Your task to perform on an android device: Show the shopping cart on ebay. Add razer thresher to the cart on ebay Image 0: 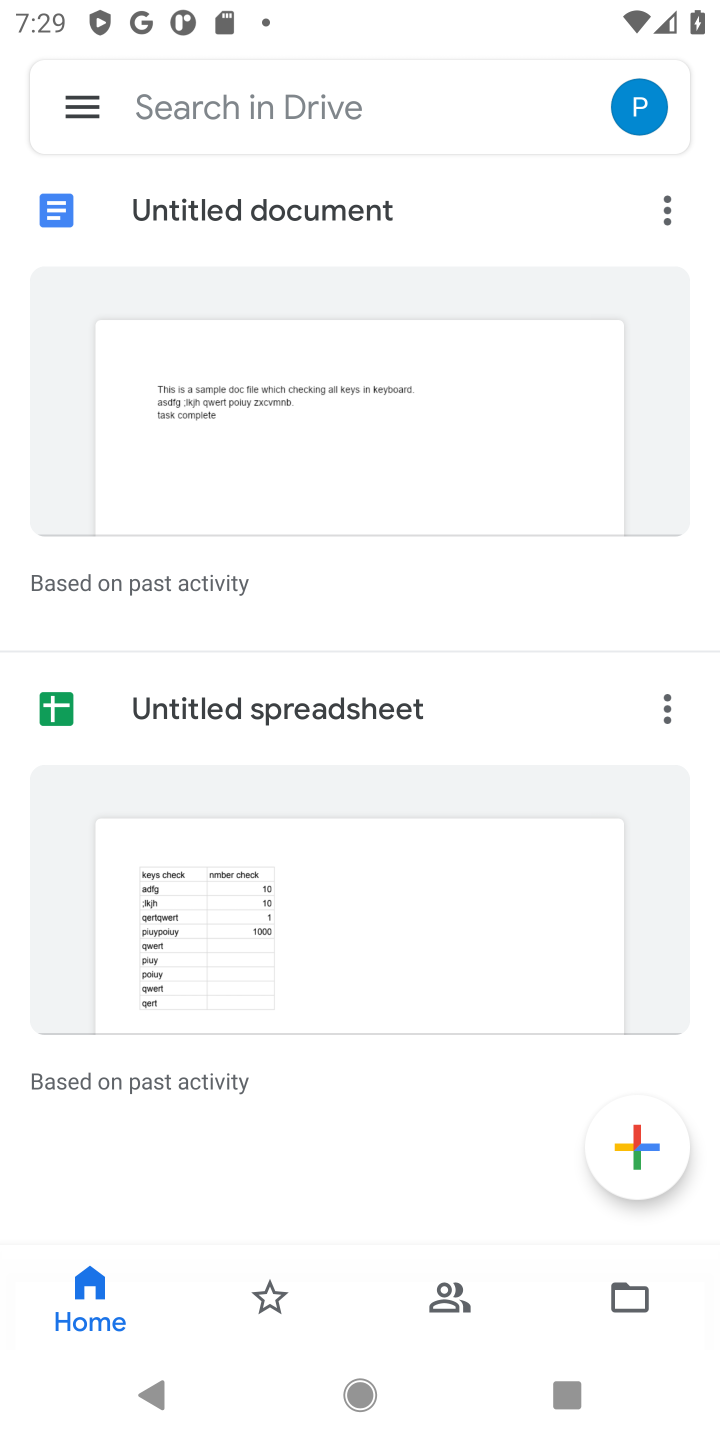
Step 0: press home button
Your task to perform on an android device: Show the shopping cart on ebay. Add razer thresher to the cart on ebay Image 1: 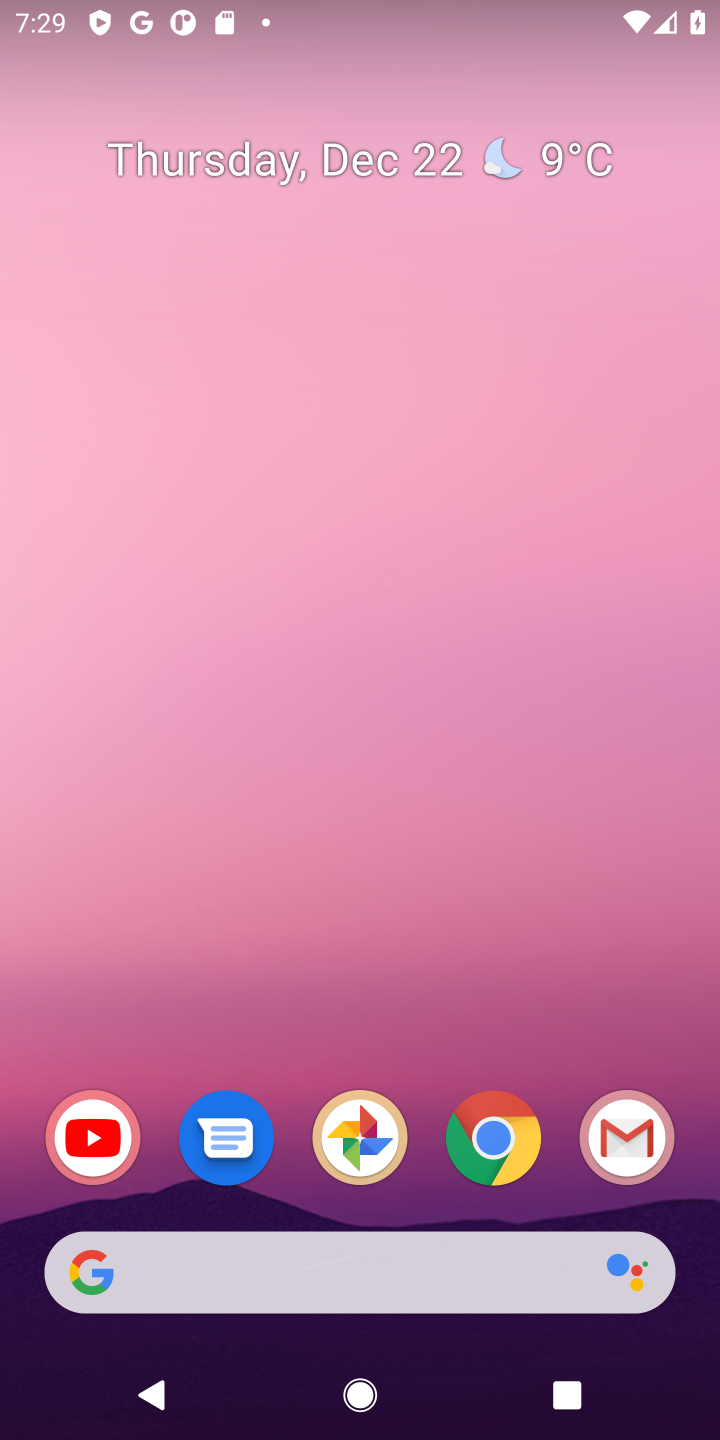
Step 1: click (494, 1154)
Your task to perform on an android device: Show the shopping cart on ebay. Add razer thresher to the cart on ebay Image 2: 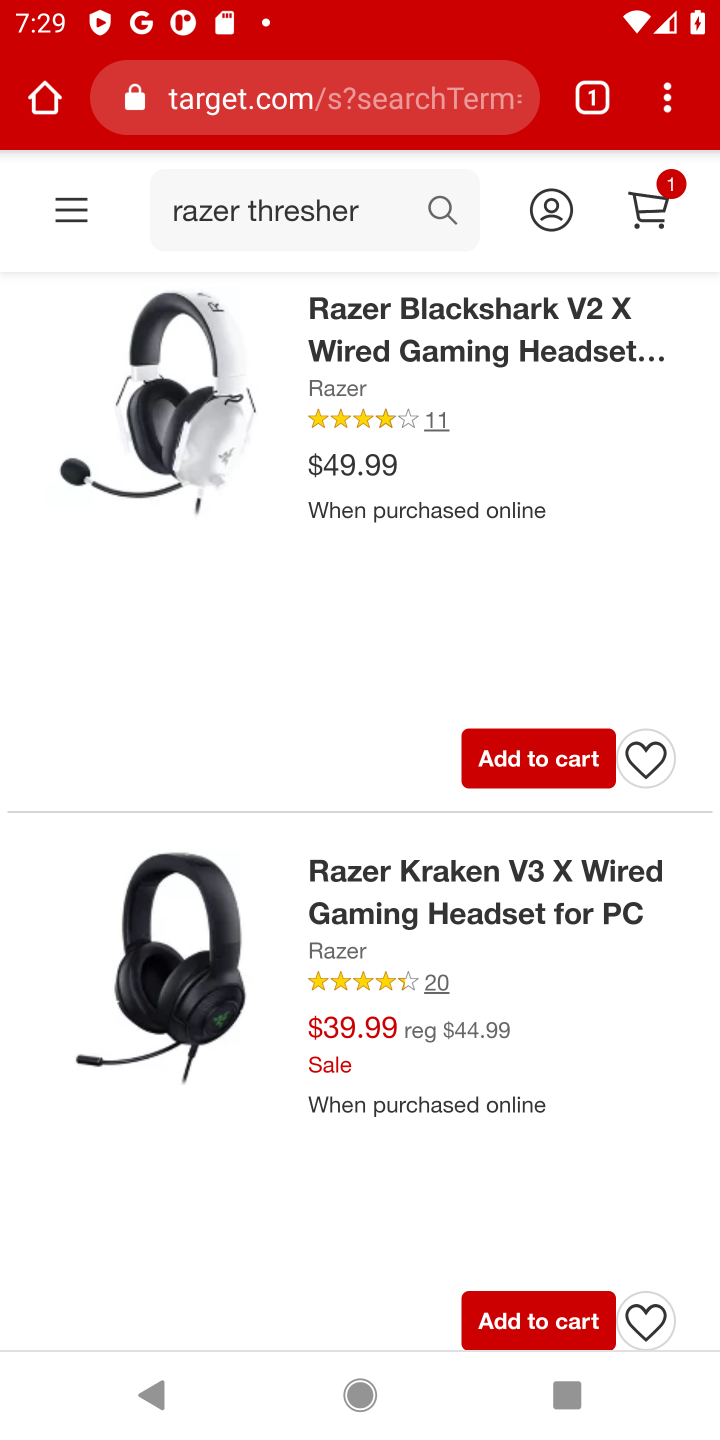
Step 2: click (344, 110)
Your task to perform on an android device: Show the shopping cart on ebay. Add razer thresher to the cart on ebay Image 3: 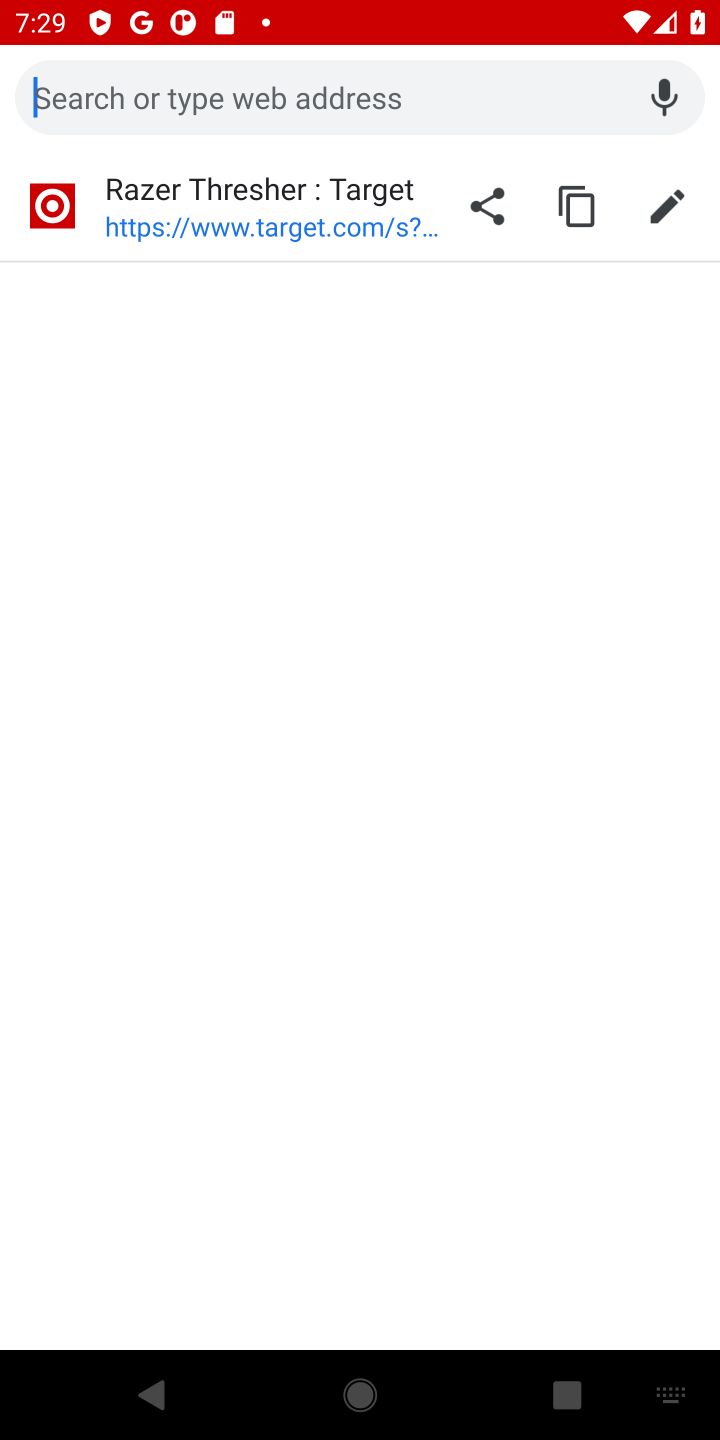
Step 3: press enter
Your task to perform on an android device: Show the shopping cart on ebay. Add razer thresher to the cart on ebay Image 4: 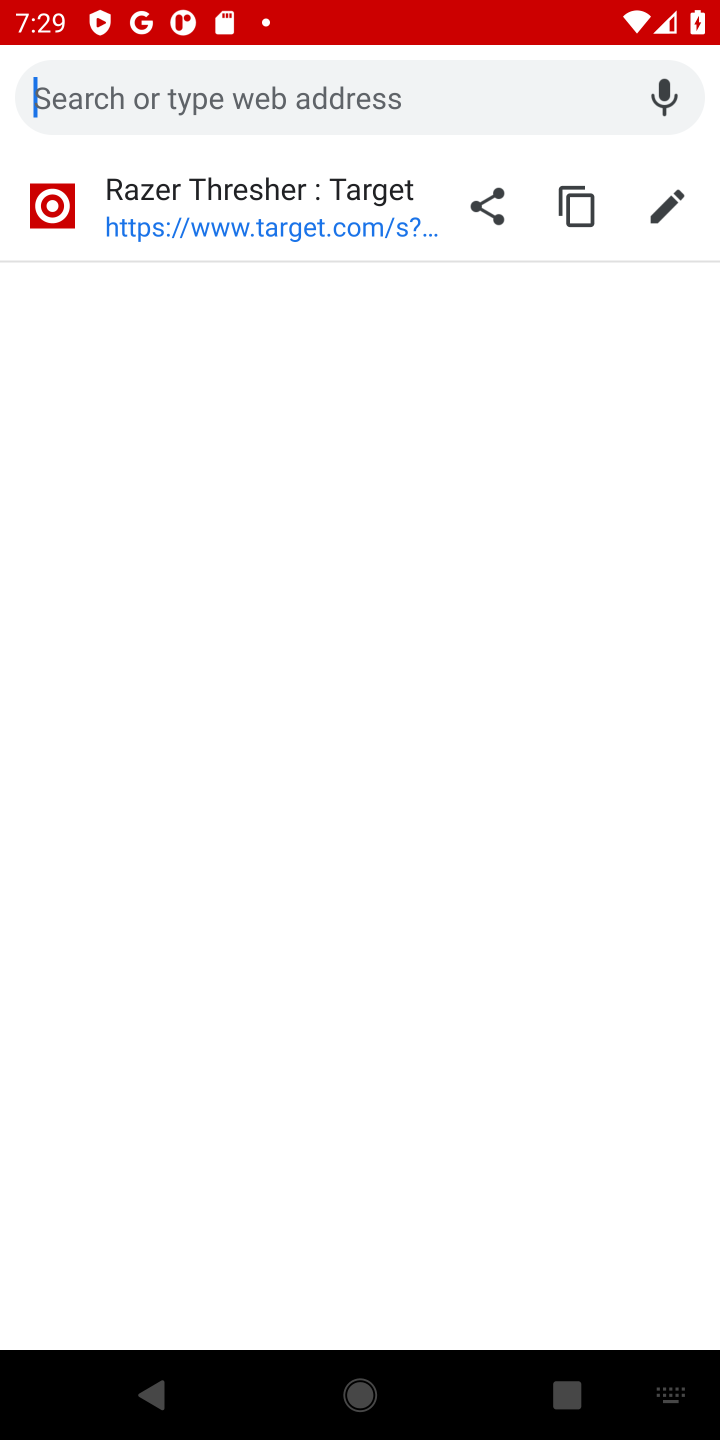
Step 4: type "ebay"
Your task to perform on an android device: Show the shopping cart on ebay. Add razer thresher to the cart on ebay Image 5: 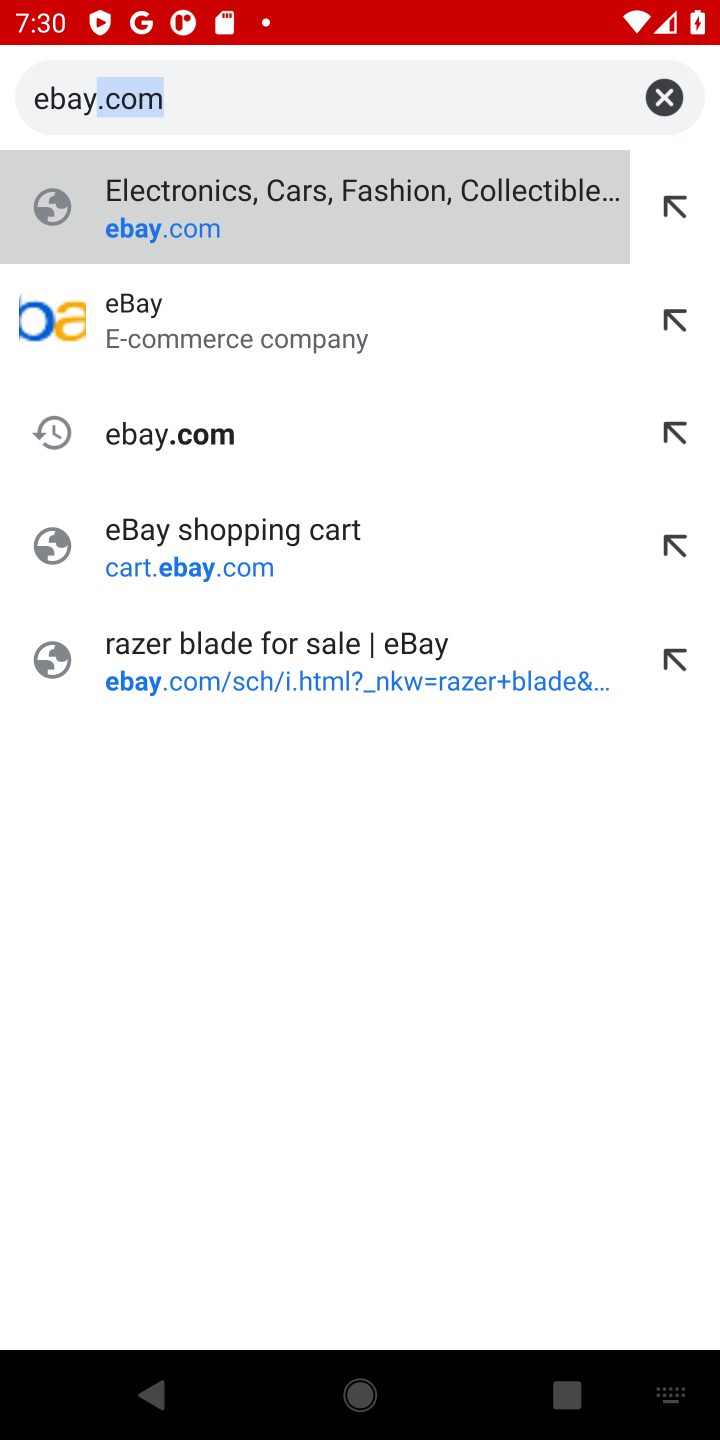
Step 5: click (210, 442)
Your task to perform on an android device: Show the shopping cart on ebay. Add razer thresher to the cart on ebay Image 6: 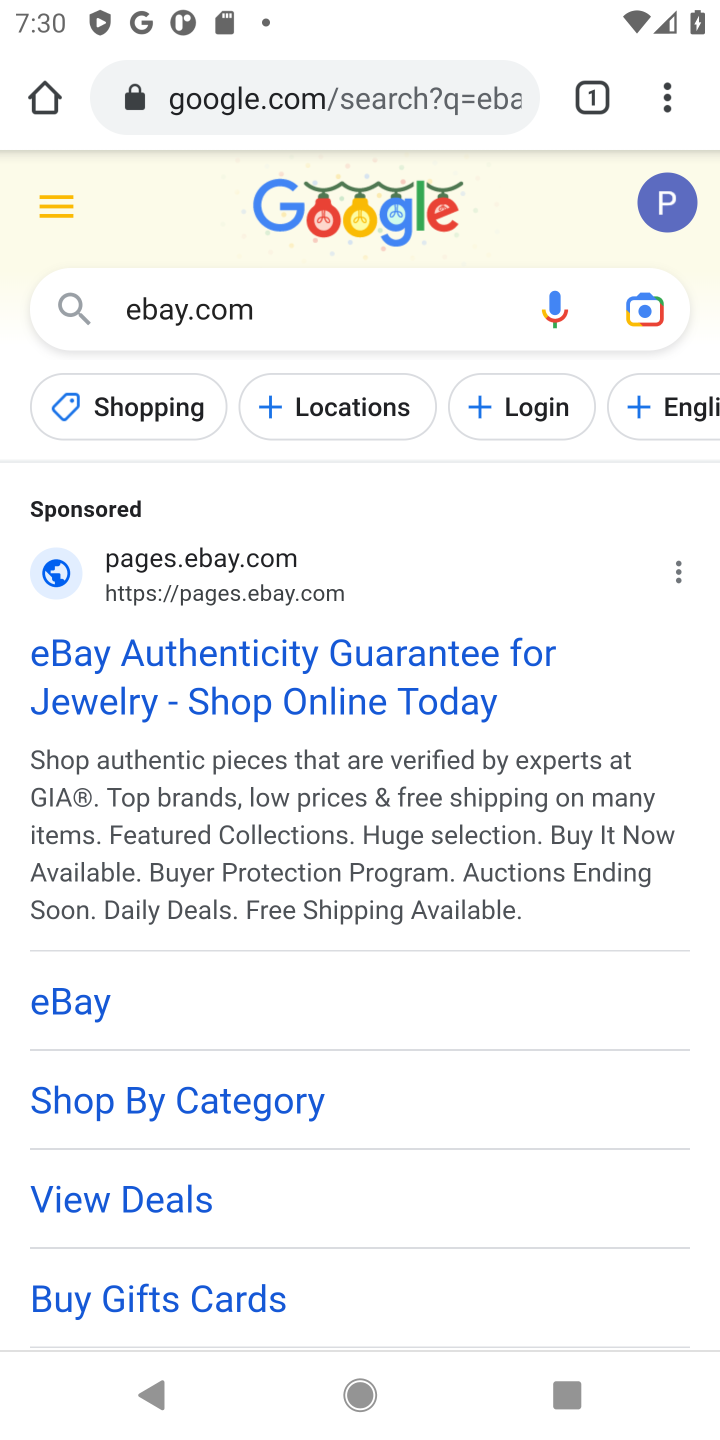
Step 6: click (281, 590)
Your task to perform on an android device: Show the shopping cart on ebay. Add razer thresher to the cart on ebay Image 7: 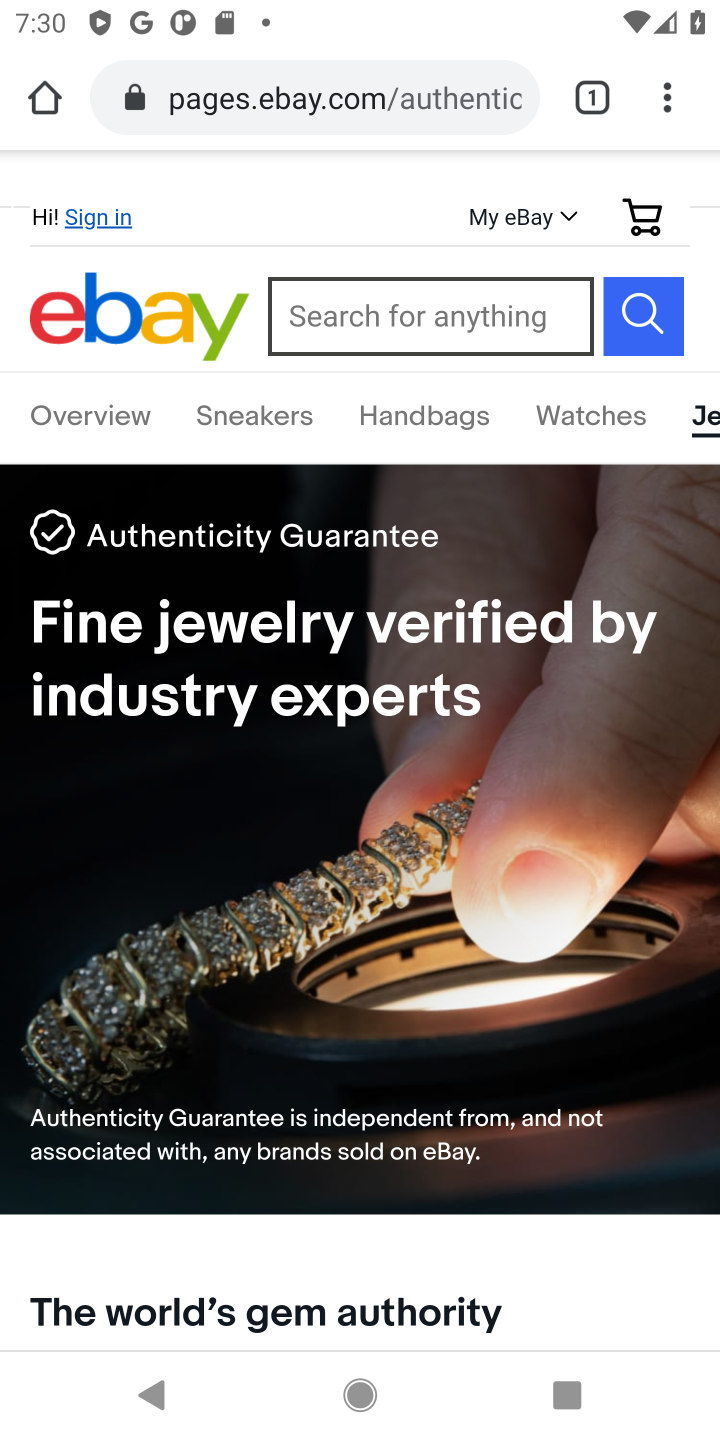
Step 7: click (641, 208)
Your task to perform on an android device: Show the shopping cart on ebay. Add razer thresher to the cart on ebay Image 8: 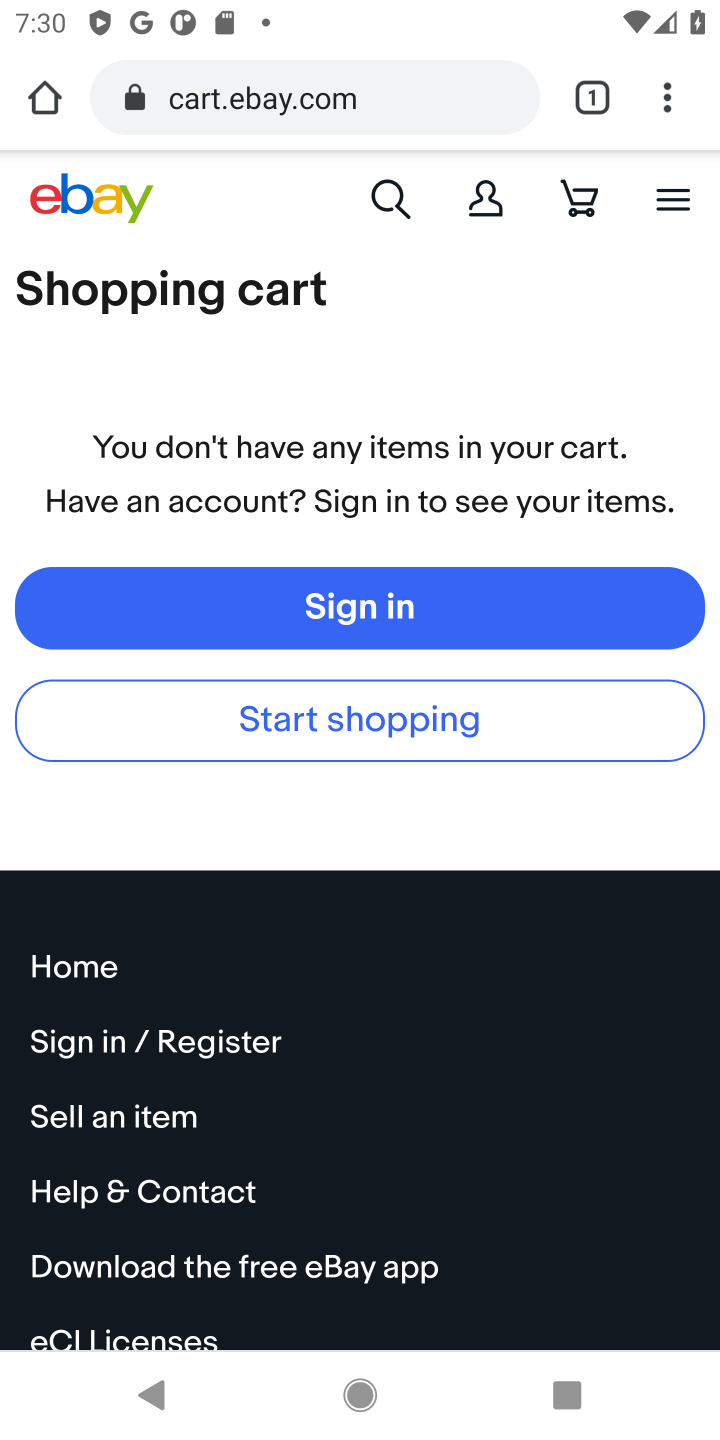
Step 8: click (384, 194)
Your task to perform on an android device: Show the shopping cart on ebay. Add razer thresher to the cart on ebay Image 9: 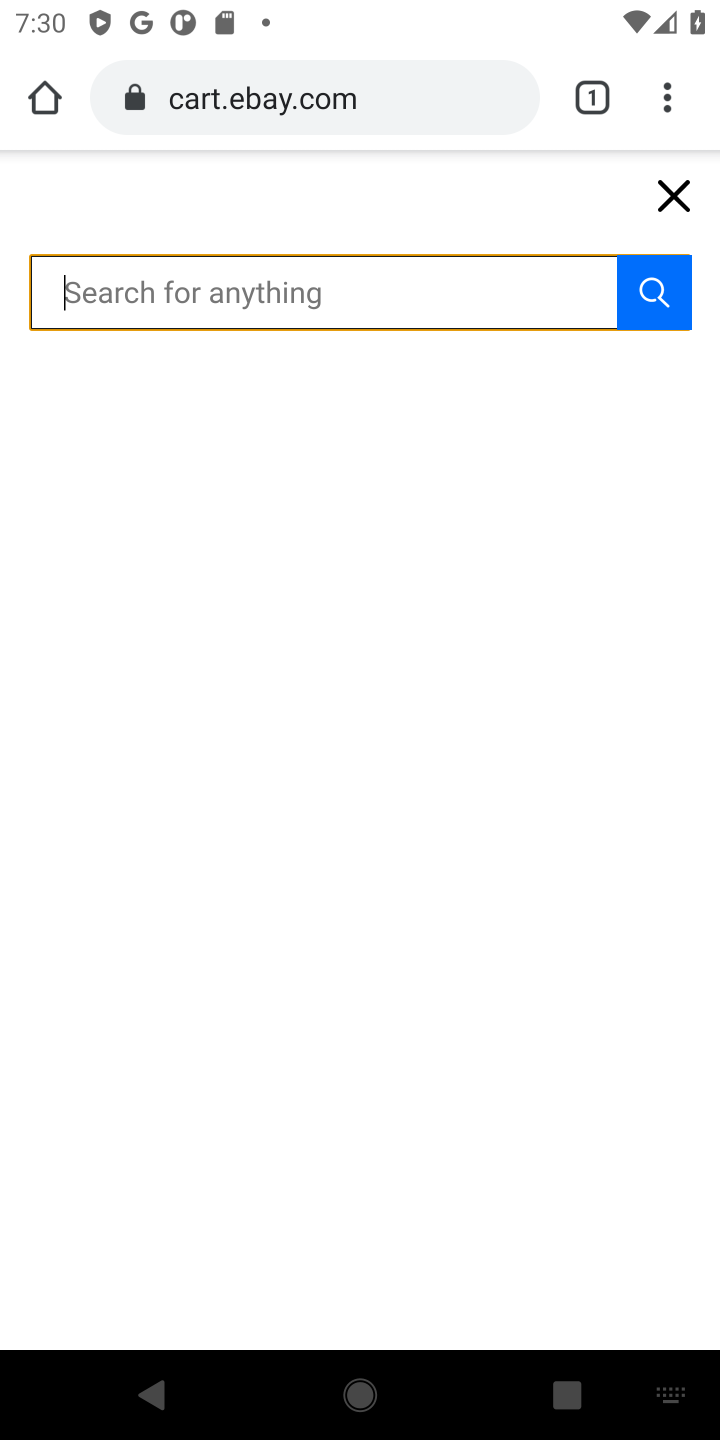
Step 9: click (505, 313)
Your task to perform on an android device: Show the shopping cart on ebay. Add razer thresher to the cart on ebay Image 10: 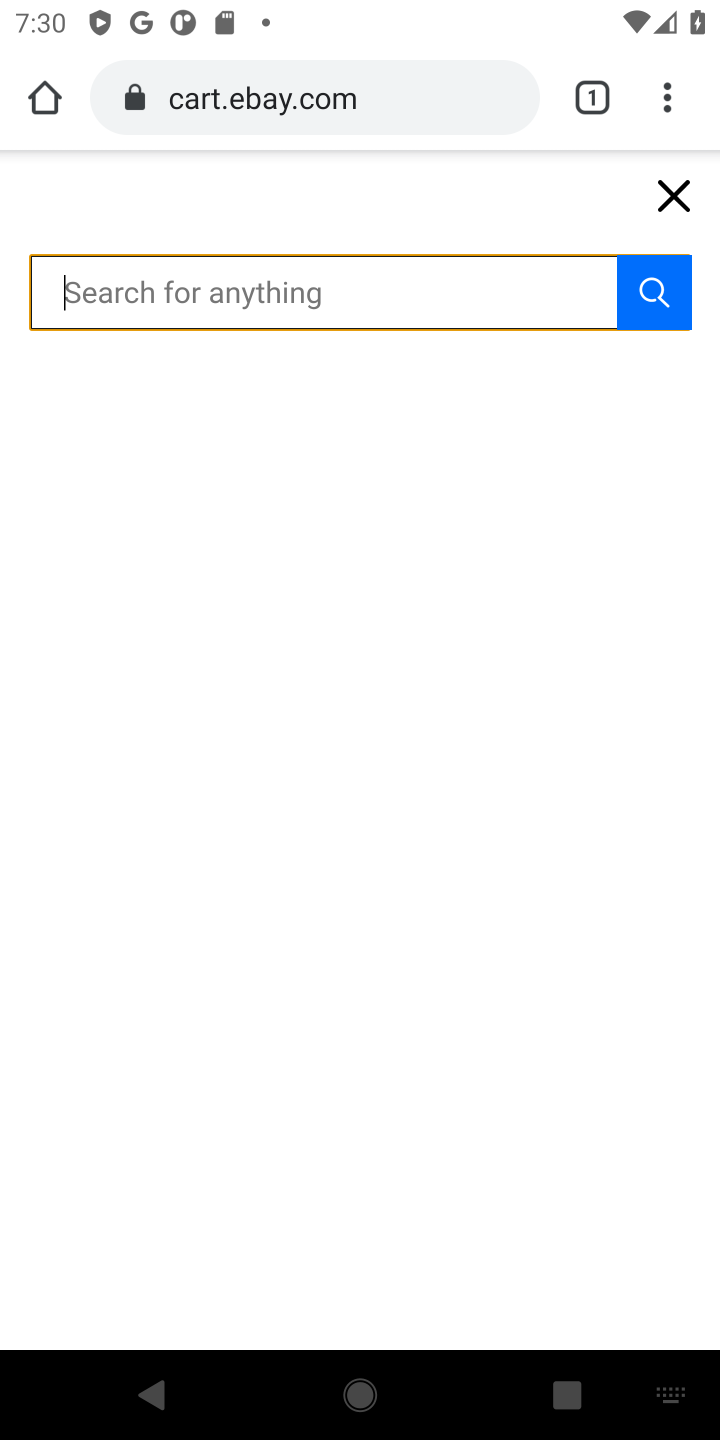
Step 10: type "razer thresher"
Your task to perform on an android device: Show the shopping cart on ebay. Add razer thresher to the cart on ebay Image 11: 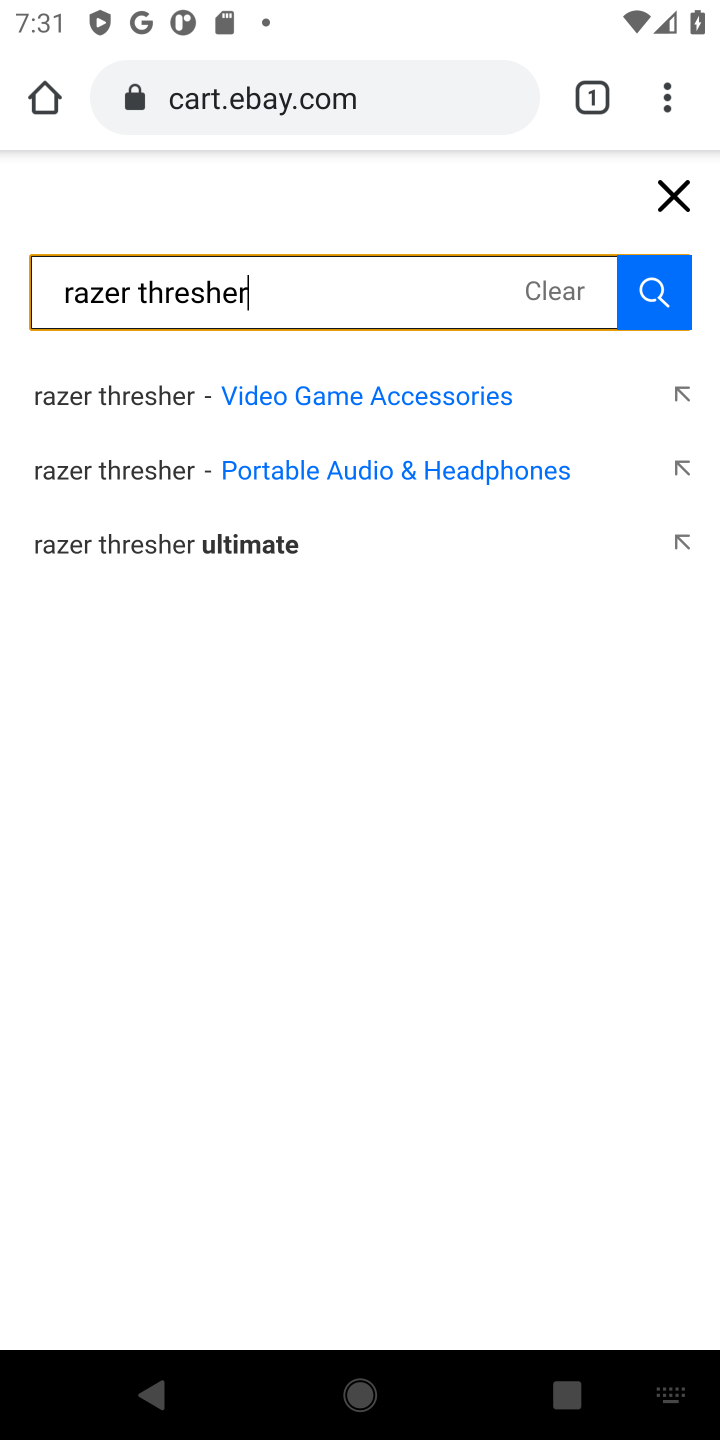
Step 11: click (651, 290)
Your task to perform on an android device: Show the shopping cart on ebay. Add razer thresher to the cart on ebay Image 12: 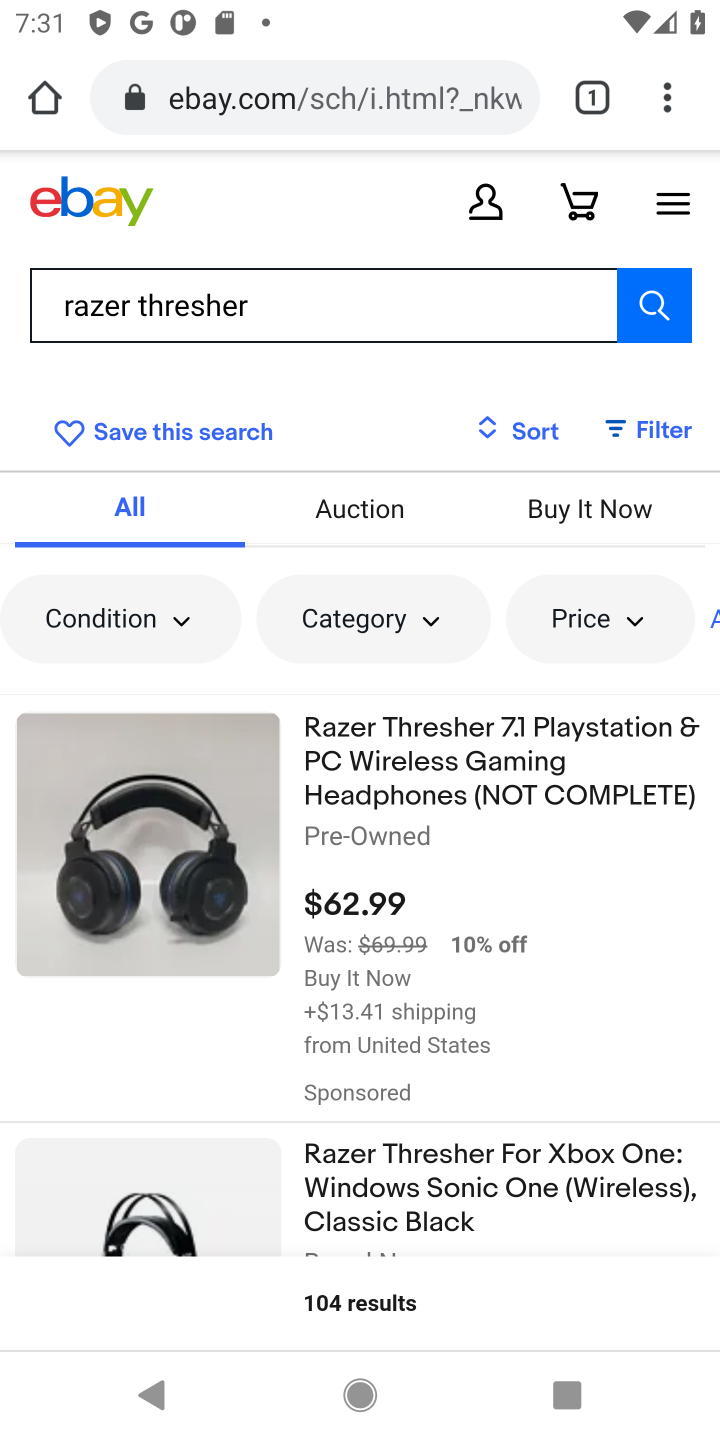
Step 12: click (176, 855)
Your task to perform on an android device: Show the shopping cart on ebay. Add razer thresher to the cart on ebay Image 13: 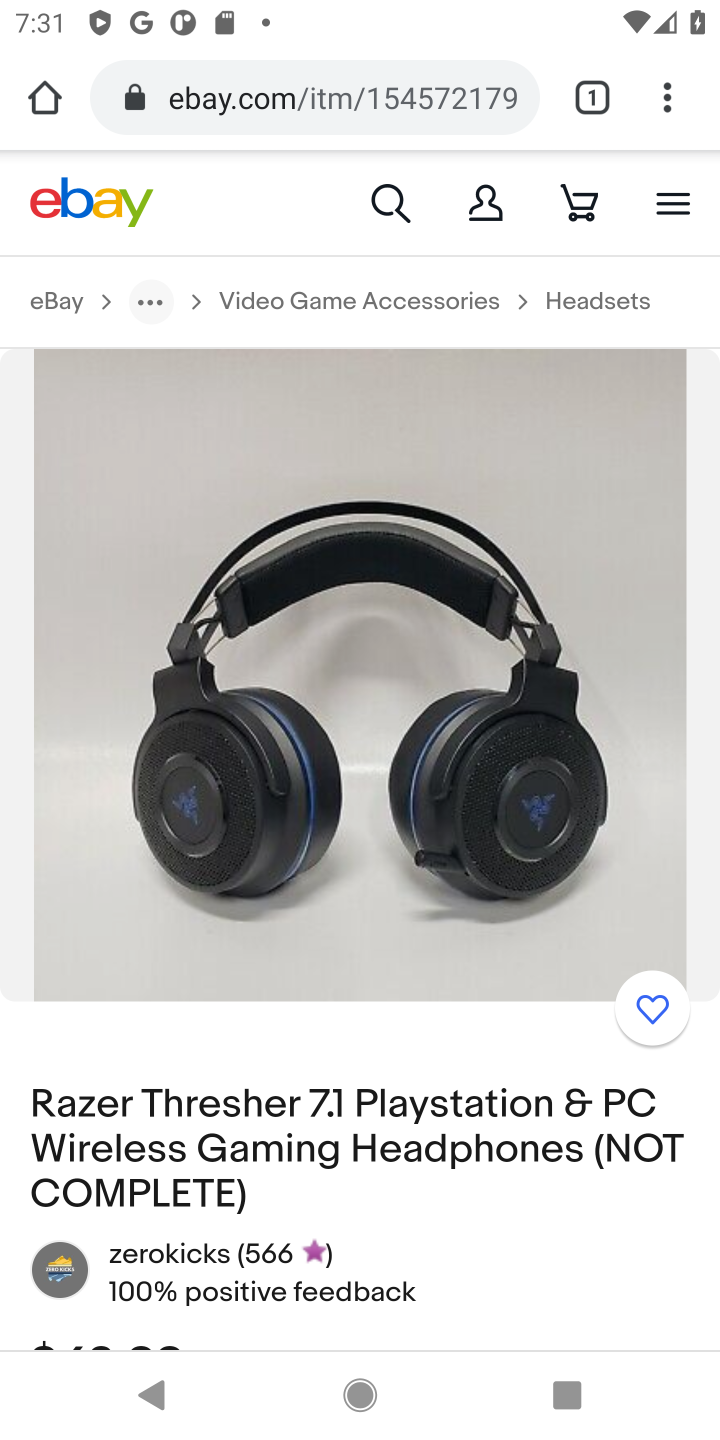
Step 13: drag from (418, 1114) to (329, 572)
Your task to perform on an android device: Show the shopping cart on ebay. Add razer thresher to the cart on ebay Image 14: 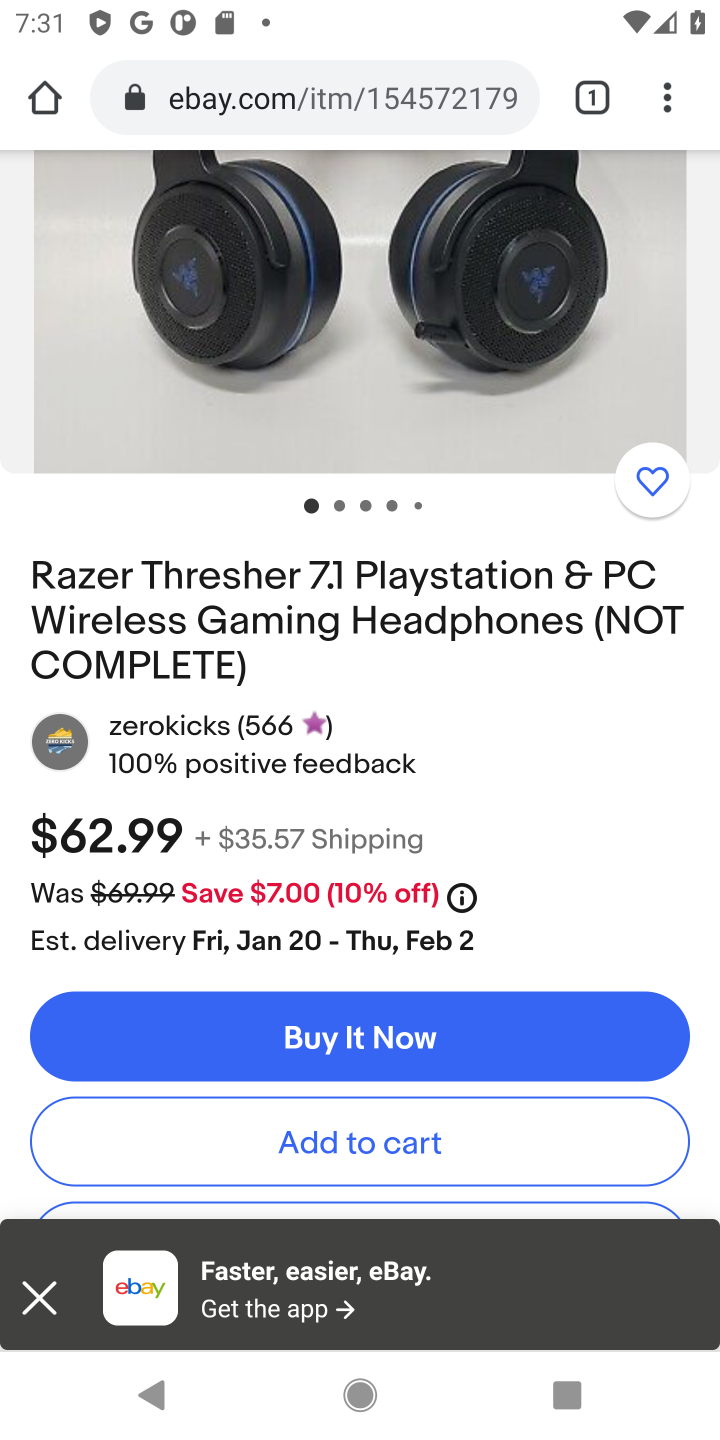
Step 14: click (337, 1150)
Your task to perform on an android device: Show the shopping cart on ebay. Add razer thresher to the cart on ebay Image 15: 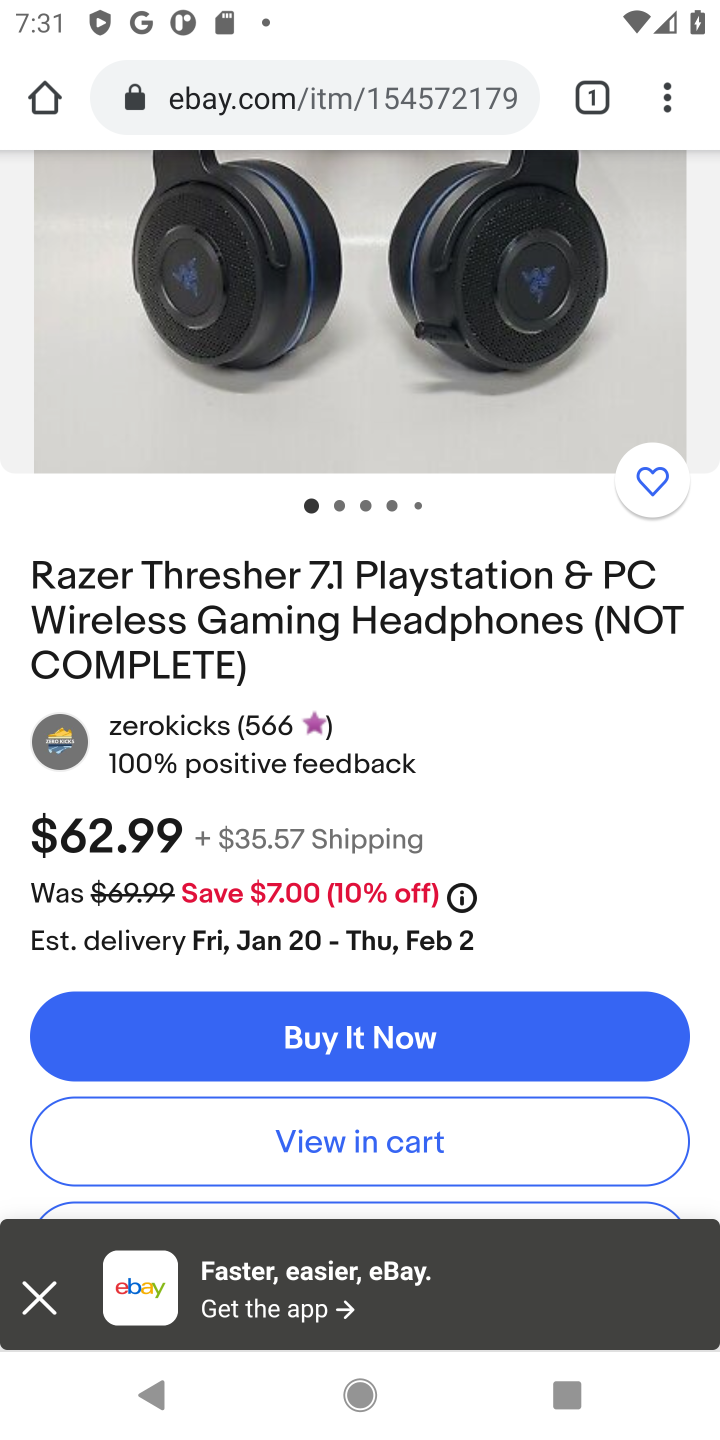
Step 15: click (337, 1150)
Your task to perform on an android device: Show the shopping cart on ebay. Add razer thresher to the cart on ebay Image 16: 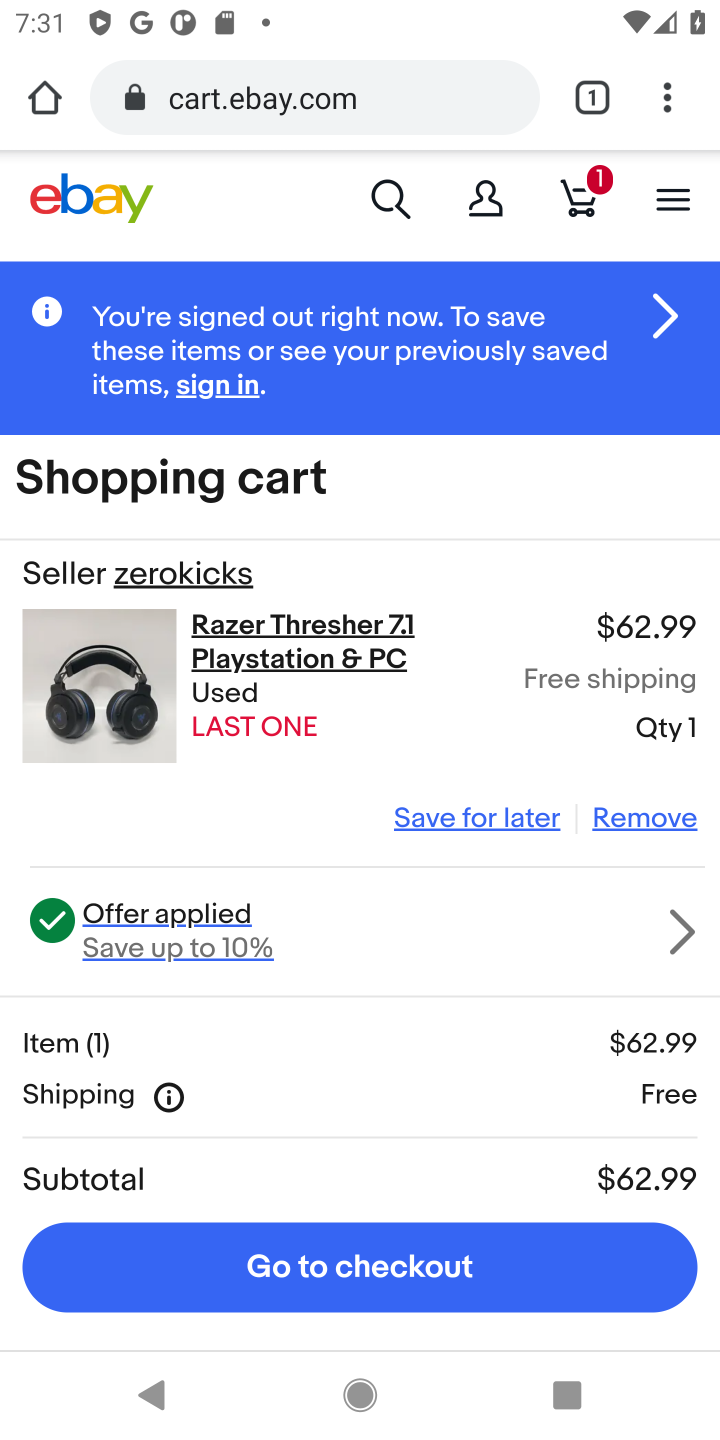
Step 16: task complete